Your task to perform on an android device: Show the shopping cart on walmart.com. Image 0: 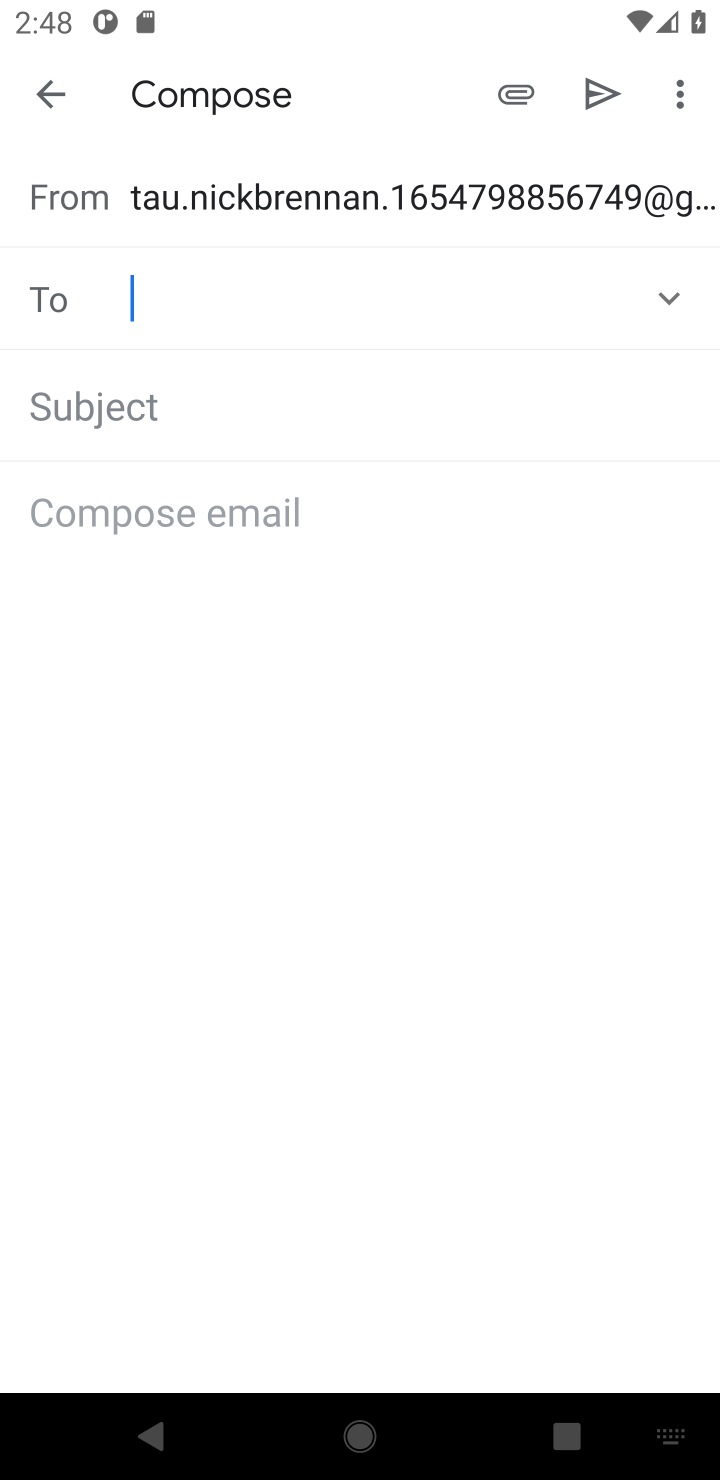
Step 0: press home button
Your task to perform on an android device: Show the shopping cart on walmart.com. Image 1: 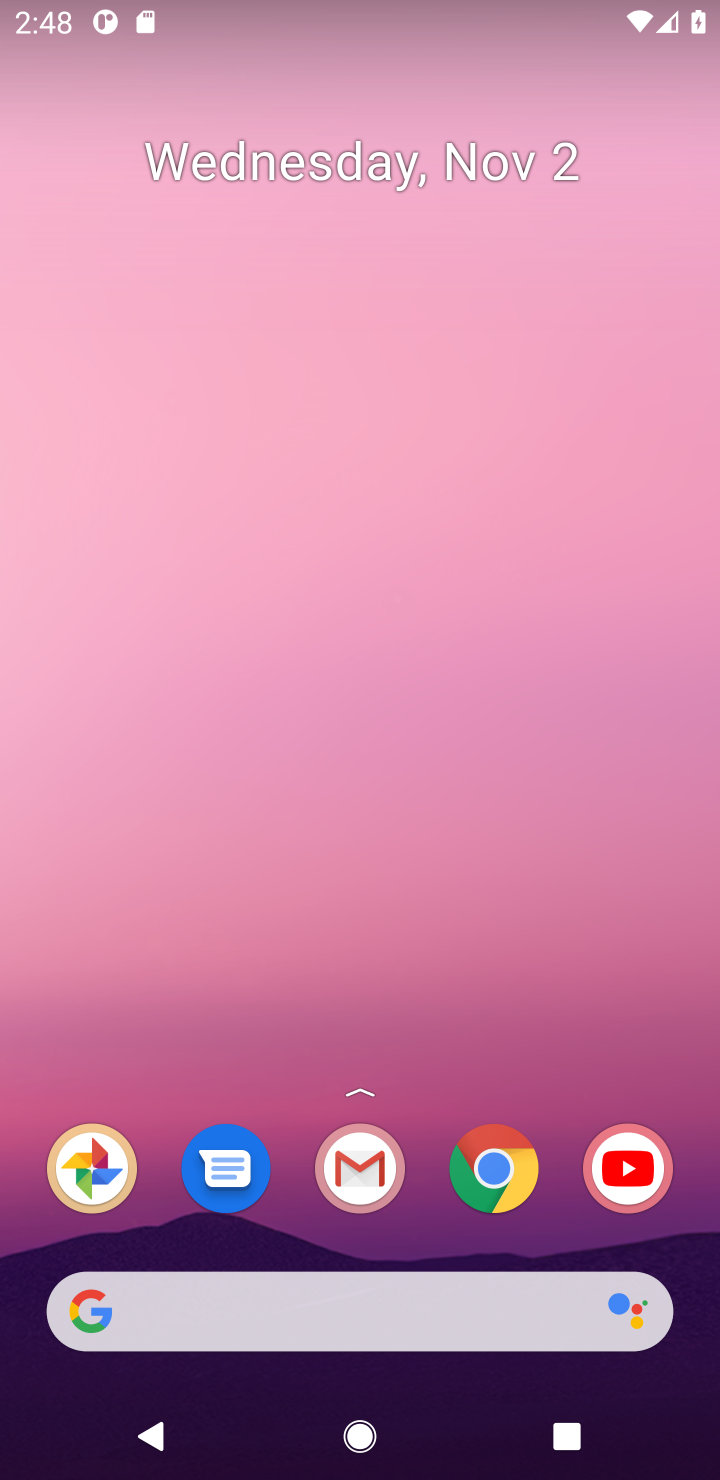
Step 1: click (336, 1286)
Your task to perform on an android device: Show the shopping cart on walmart.com. Image 2: 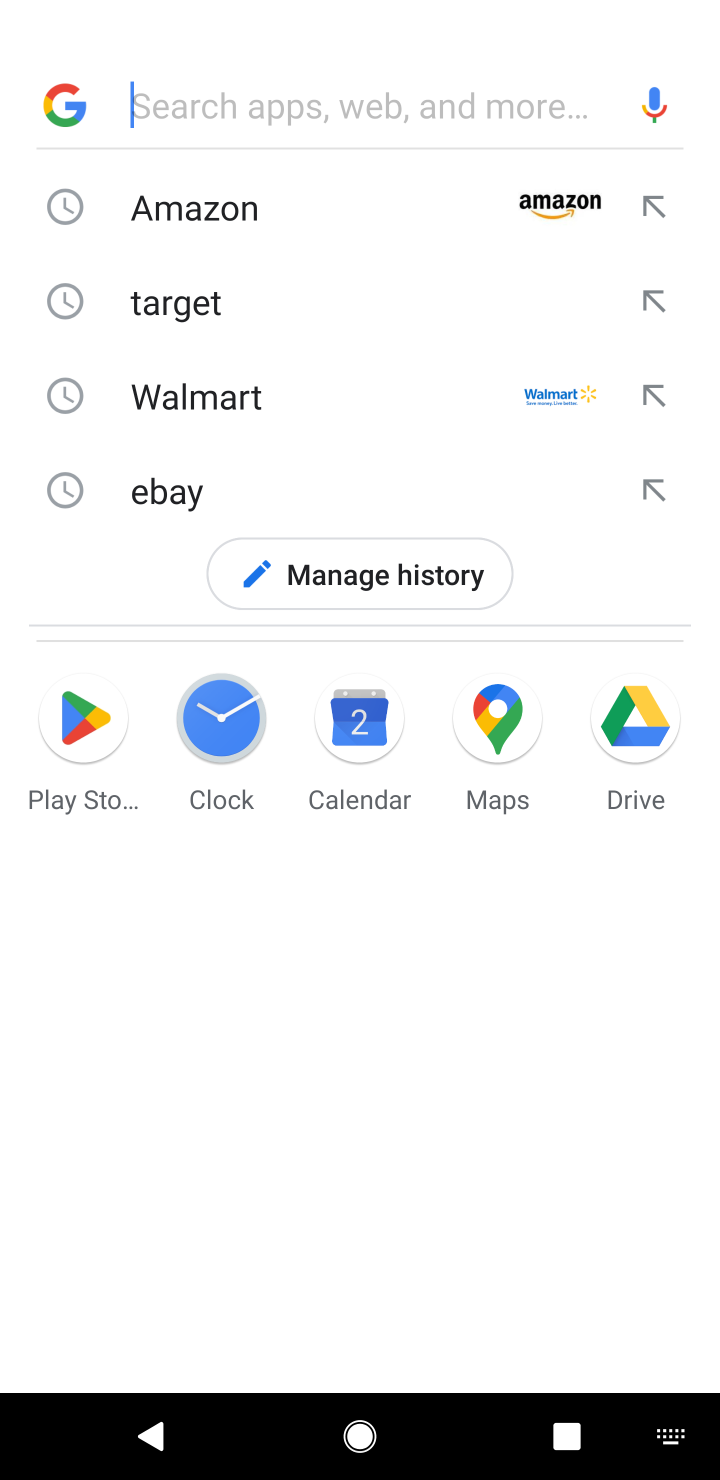
Step 2: type "walmart.com."
Your task to perform on an android device: Show the shopping cart on walmart.com. Image 3: 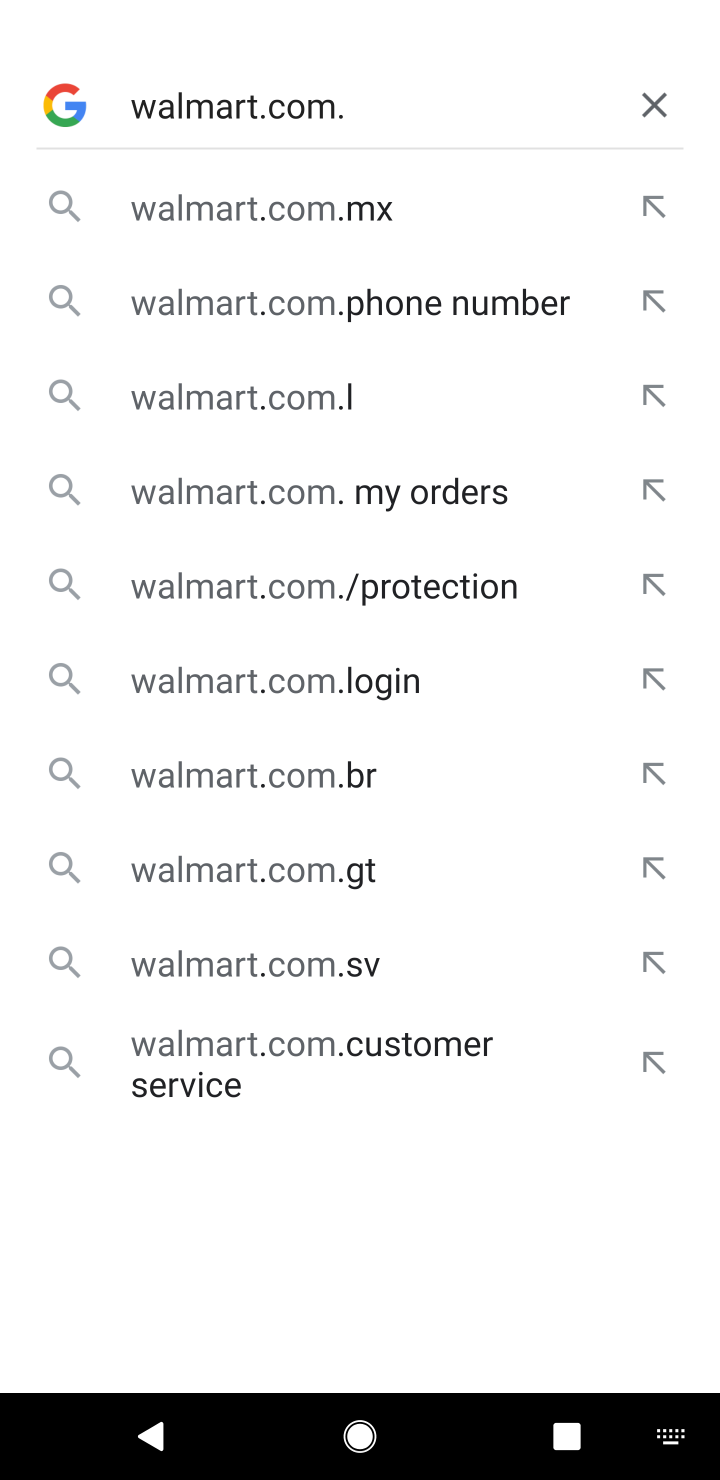
Step 3: click (656, 93)
Your task to perform on an android device: Show the shopping cart on walmart.com. Image 4: 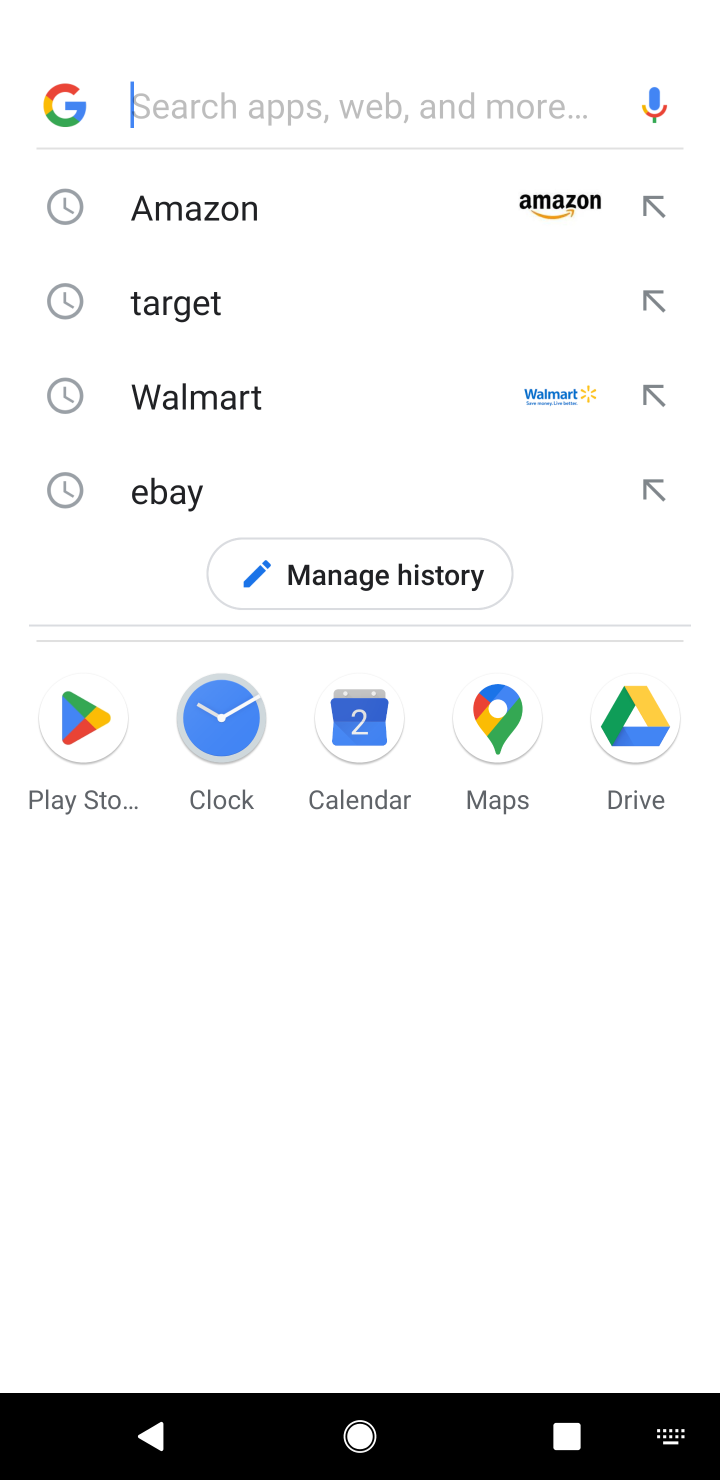
Step 4: type "walmart.com"
Your task to perform on an android device: Show the shopping cart on walmart.com. Image 5: 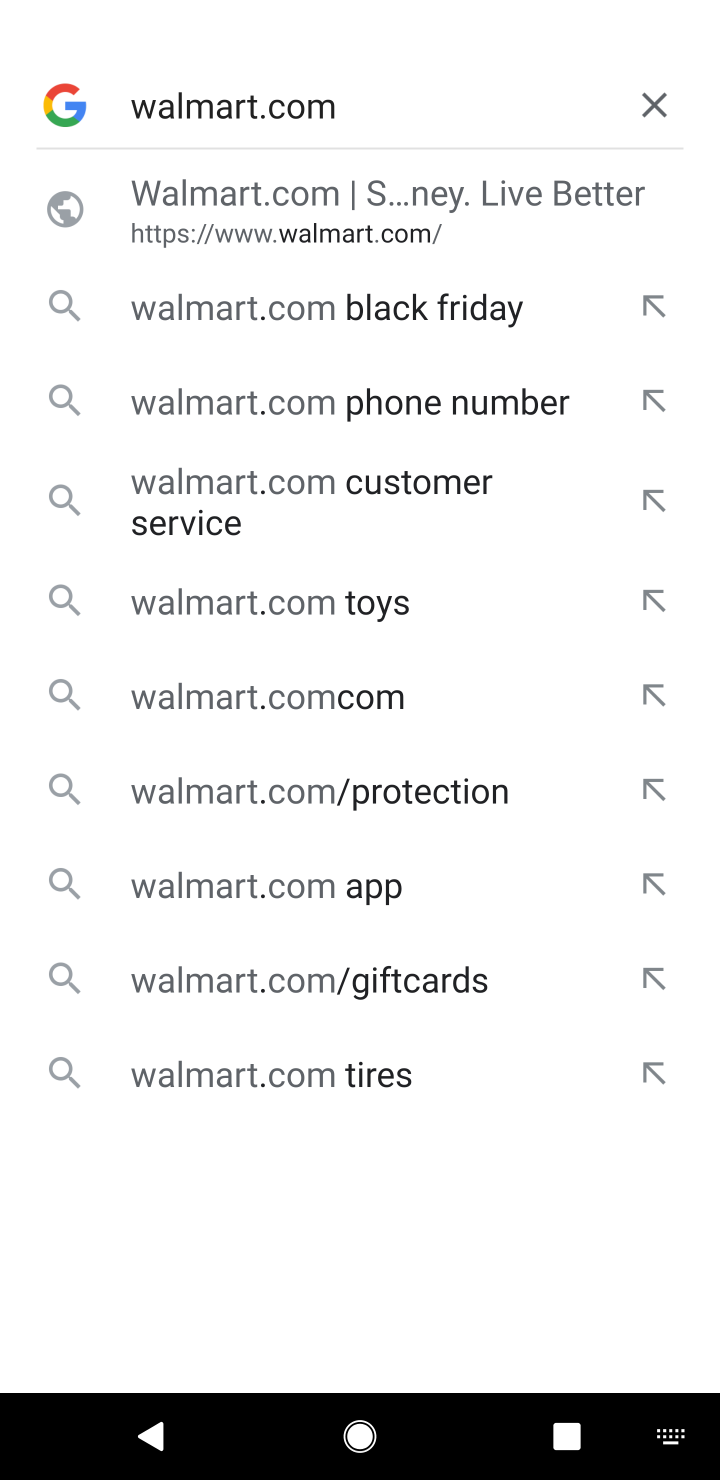
Step 5: click (408, 221)
Your task to perform on an android device: Show the shopping cart on walmart.com. Image 6: 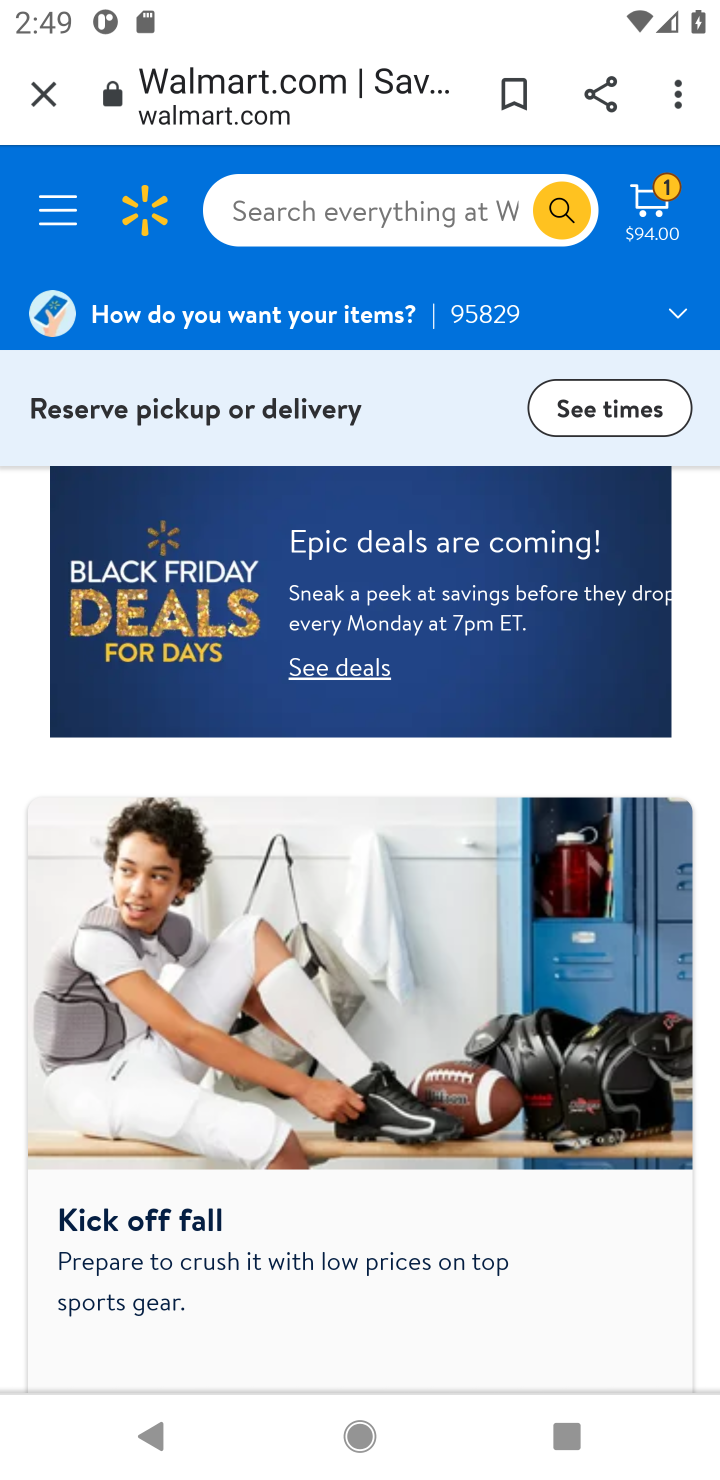
Step 6: click (653, 193)
Your task to perform on an android device: Show the shopping cart on walmart.com. Image 7: 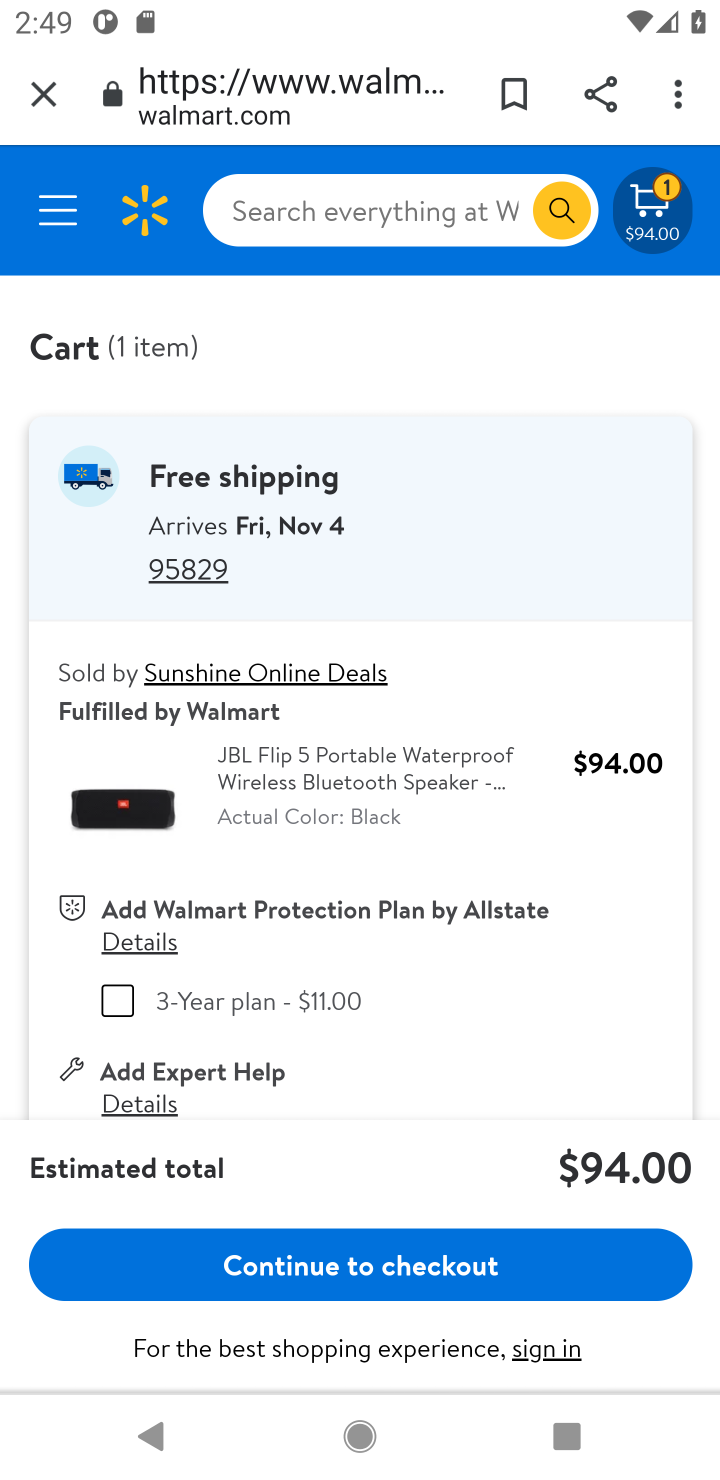
Step 7: task complete